Your task to perform on an android device: change timer sound Image 0: 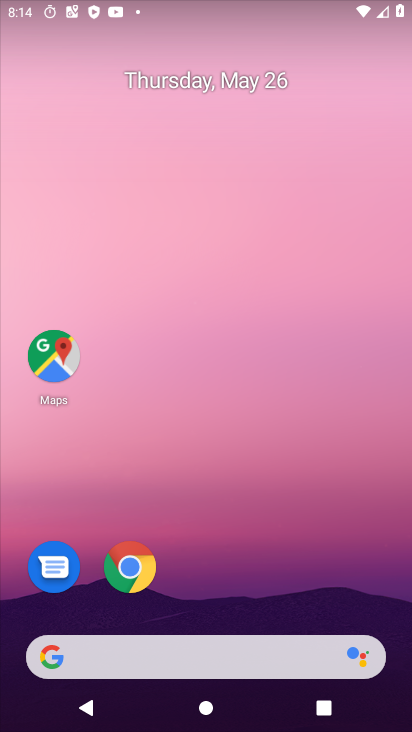
Step 0: press home button
Your task to perform on an android device: change timer sound Image 1: 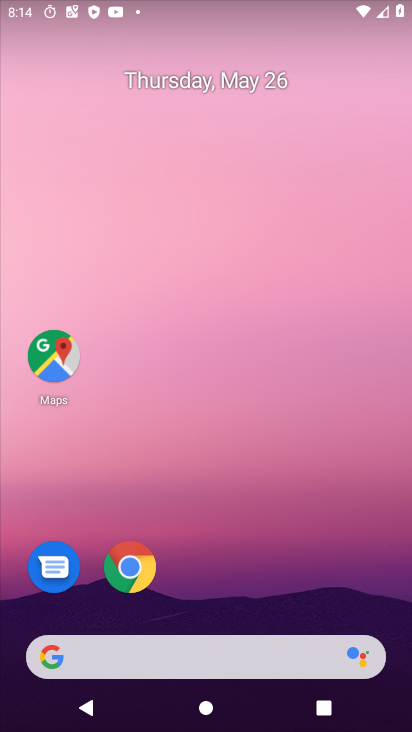
Step 1: drag from (160, 647) to (346, 75)
Your task to perform on an android device: change timer sound Image 2: 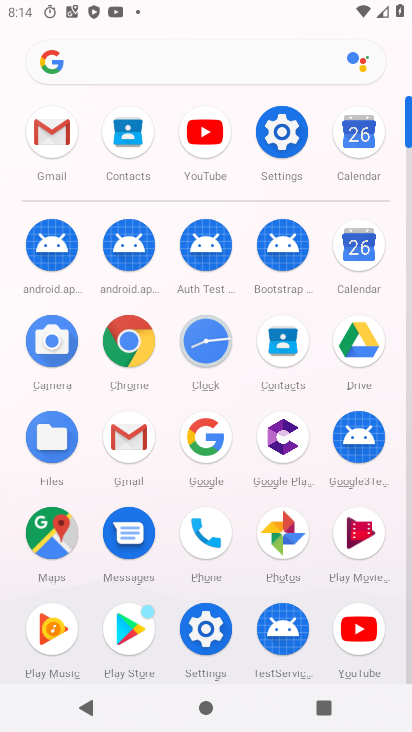
Step 2: click (201, 345)
Your task to perform on an android device: change timer sound Image 3: 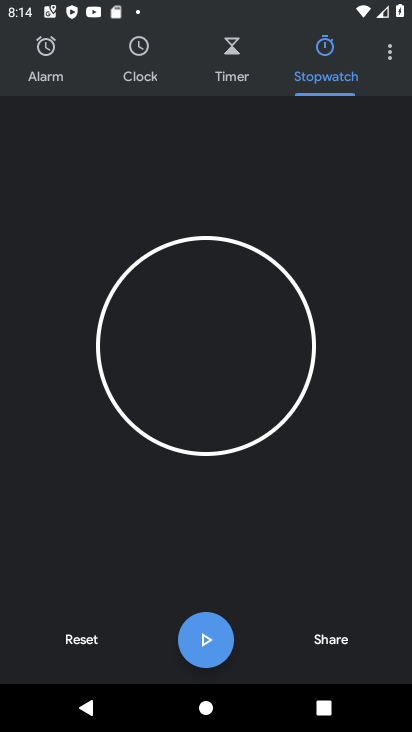
Step 3: click (390, 47)
Your task to perform on an android device: change timer sound Image 4: 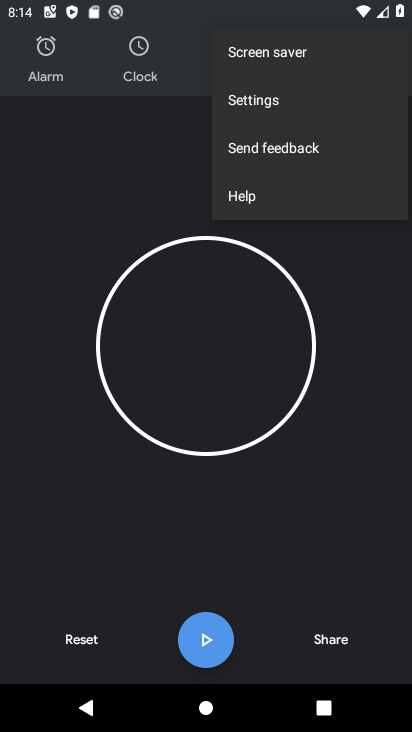
Step 4: click (255, 104)
Your task to perform on an android device: change timer sound Image 5: 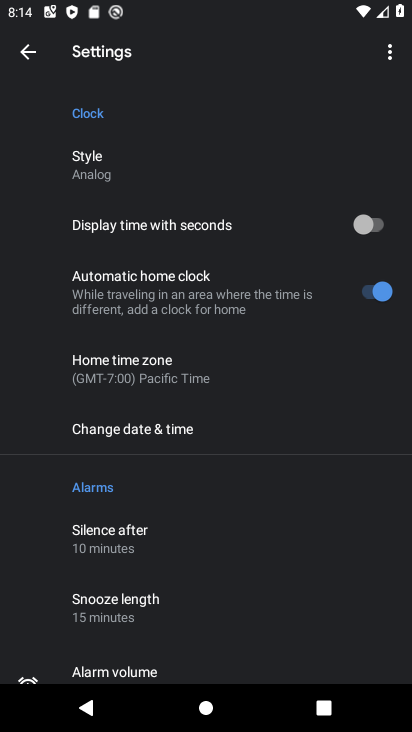
Step 5: drag from (227, 601) to (327, 105)
Your task to perform on an android device: change timer sound Image 6: 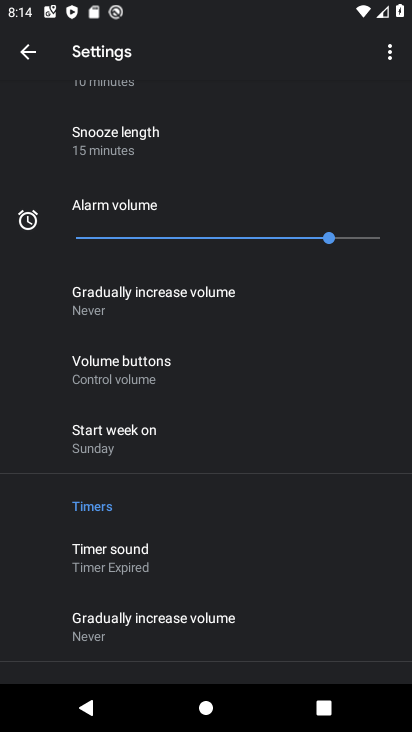
Step 6: click (128, 564)
Your task to perform on an android device: change timer sound Image 7: 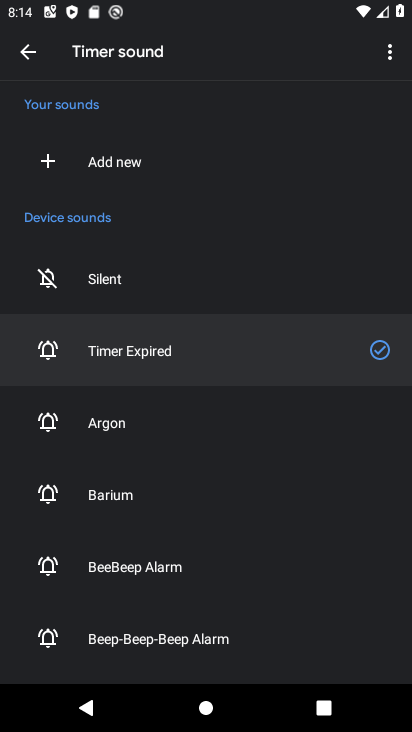
Step 7: click (113, 498)
Your task to perform on an android device: change timer sound Image 8: 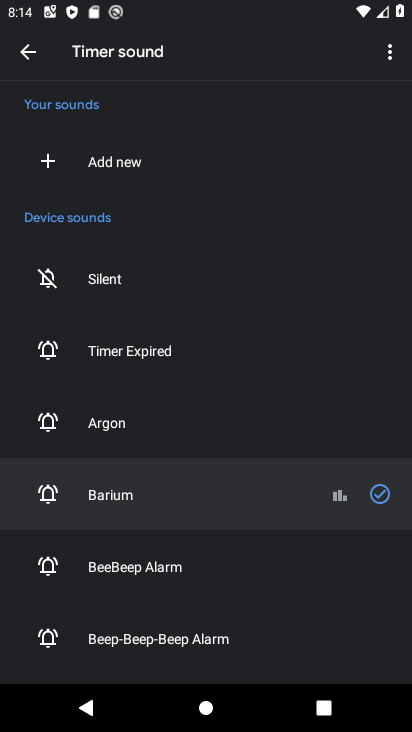
Step 8: task complete